Your task to perform on an android device: Go to network settings Image 0: 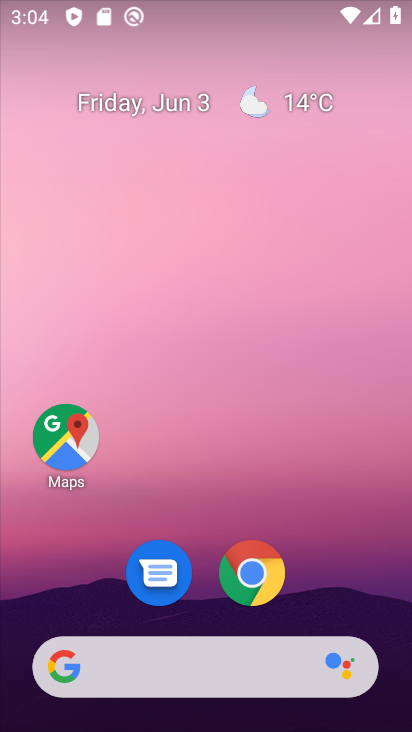
Step 0: drag from (220, 669) to (278, 257)
Your task to perform on an android device: Go to network settings Image 1: 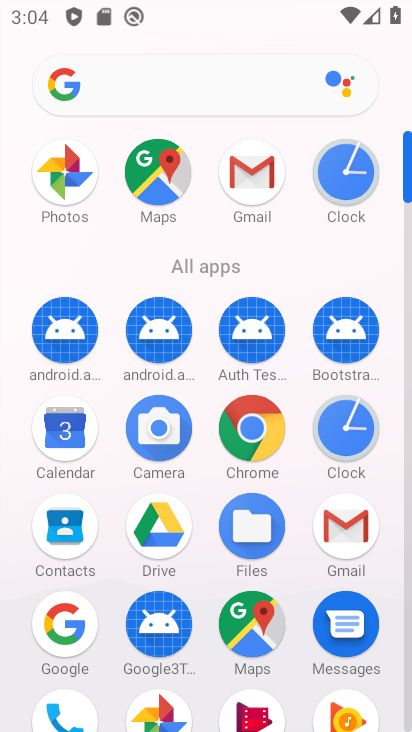
Step 1: drag from (225, 328) to (260, 99)
Your task to perform on an android device: Go to network settings Image 2: 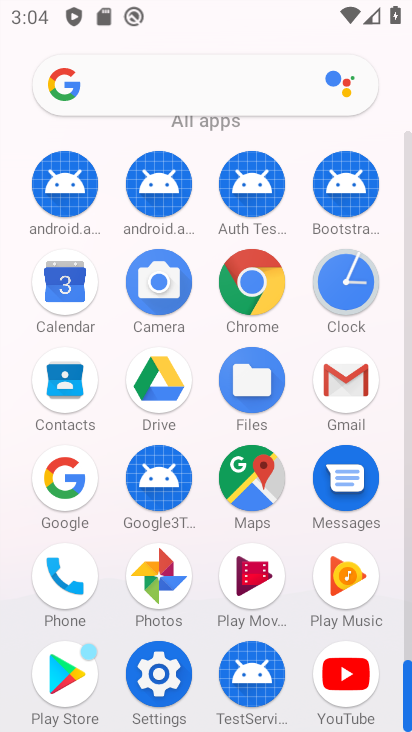
Step 2: click (166, 663)
Your task to perform on an android device: Go to network settings Image 3: 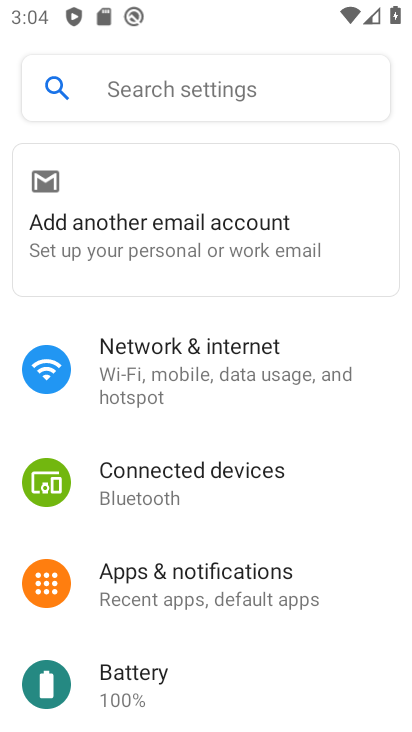
Step 3: click (194, 327)
Your task to perform on an android device: Go to network settings Image 4: 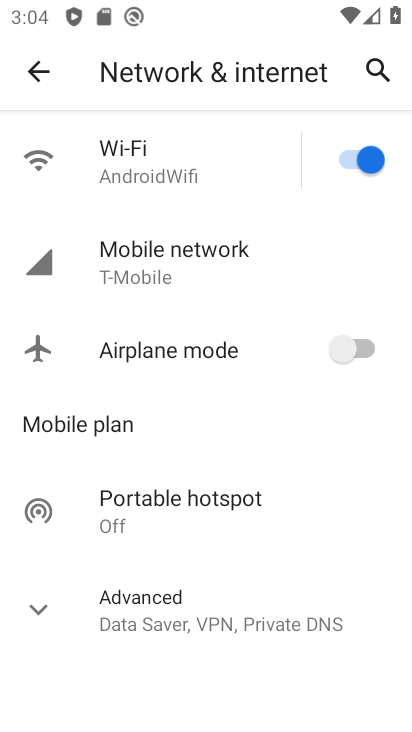
Step 4: click (192, 374)
Your task to perform on an android device: Go to network settings Image 5: 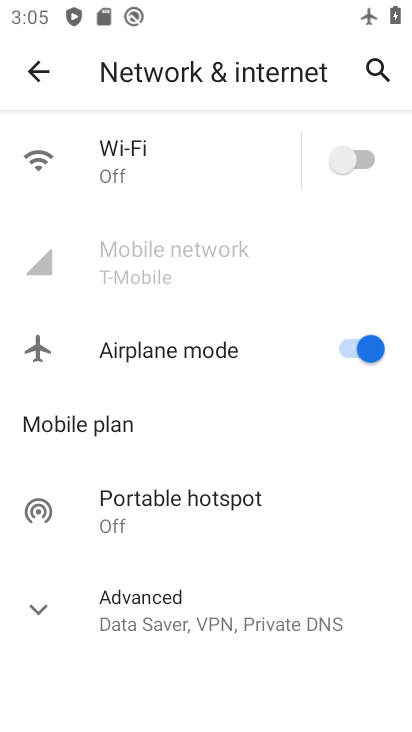
Step 5: task complete